Your task to perform on an android device: Show me popular videos on Youtube Image 0: 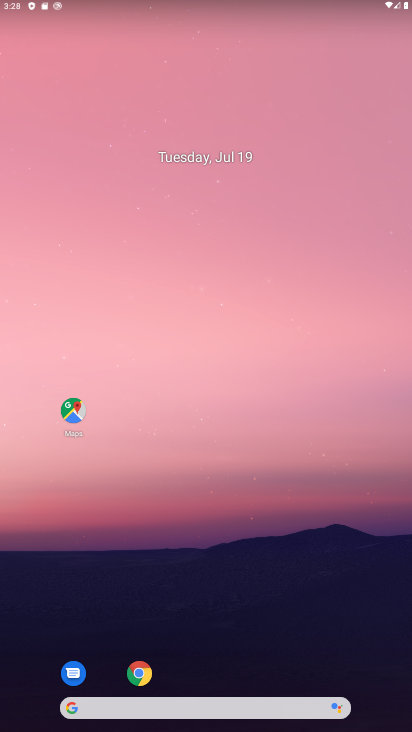
Step 0: drag from (295, 648) to (221, 130)
Your task to perform on an android device: Show me popular videos on Youtube Image 1: 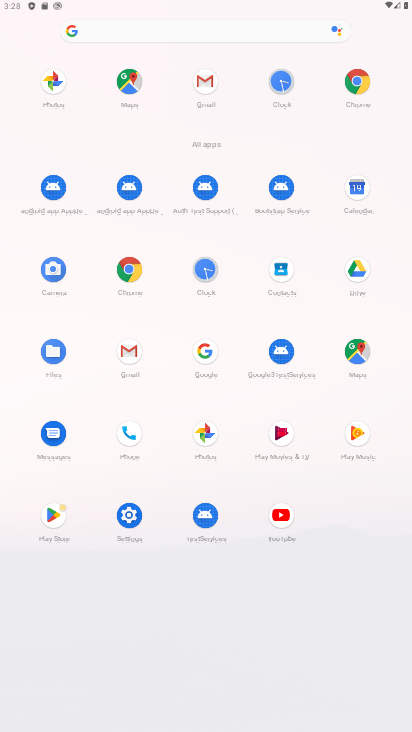
Step 1: click (281, 512)
Your task to perform on an android device: Show me popular videos on Youtube Image 2: 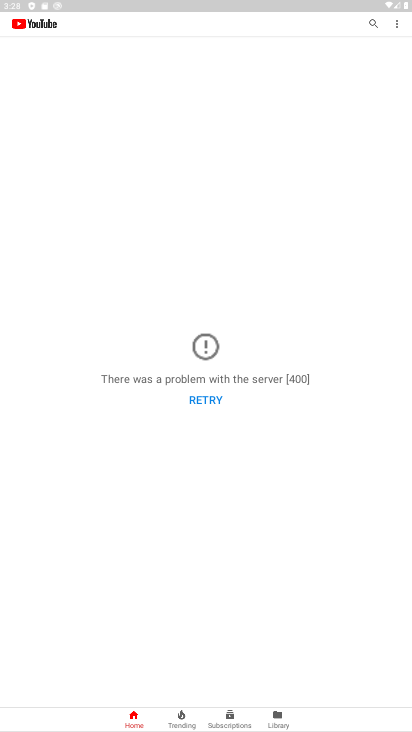
Step 2: task complete